Your task to perform on an android device: Show me popular videos on Youtube Image 0: 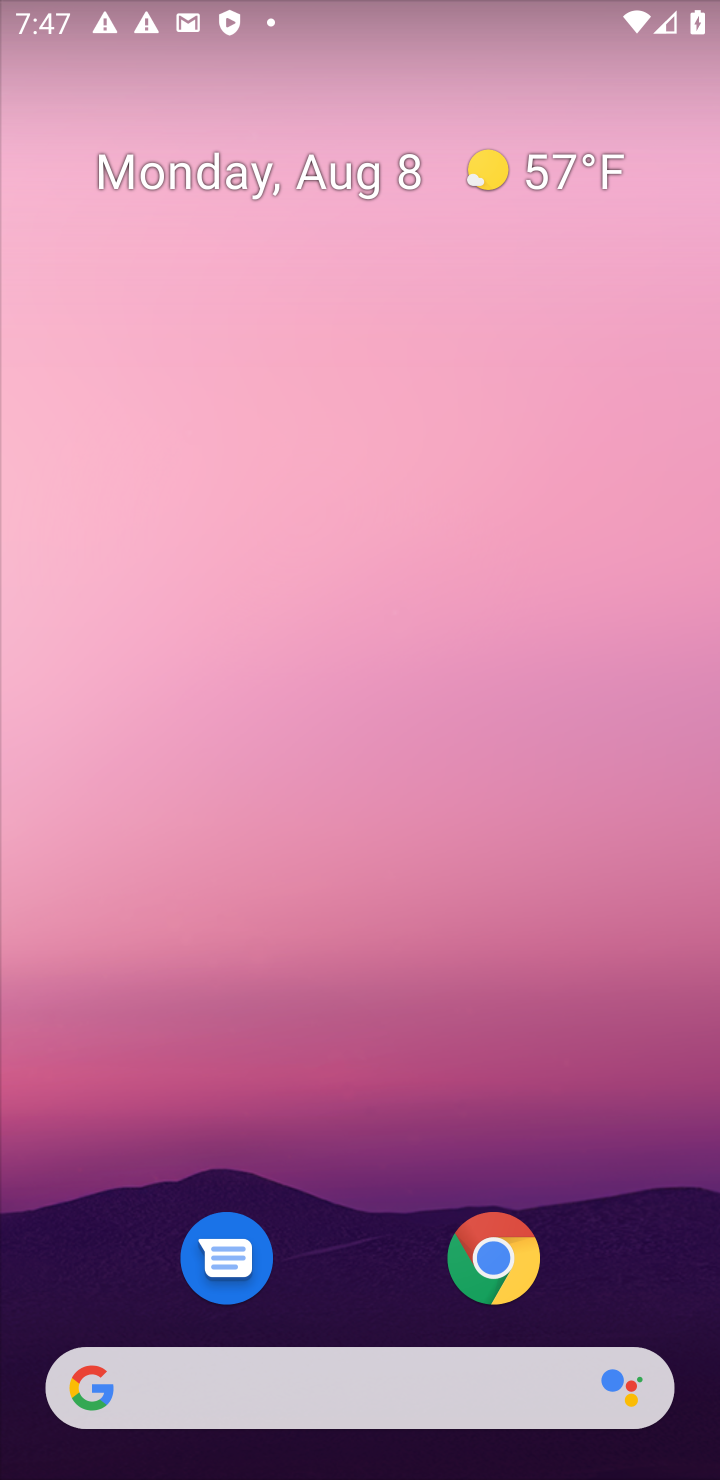
Step 0: drag from (432, 1164) to (455, 582)
Your task to perform on an android device: Show me popular videos on Youtube Image 1: 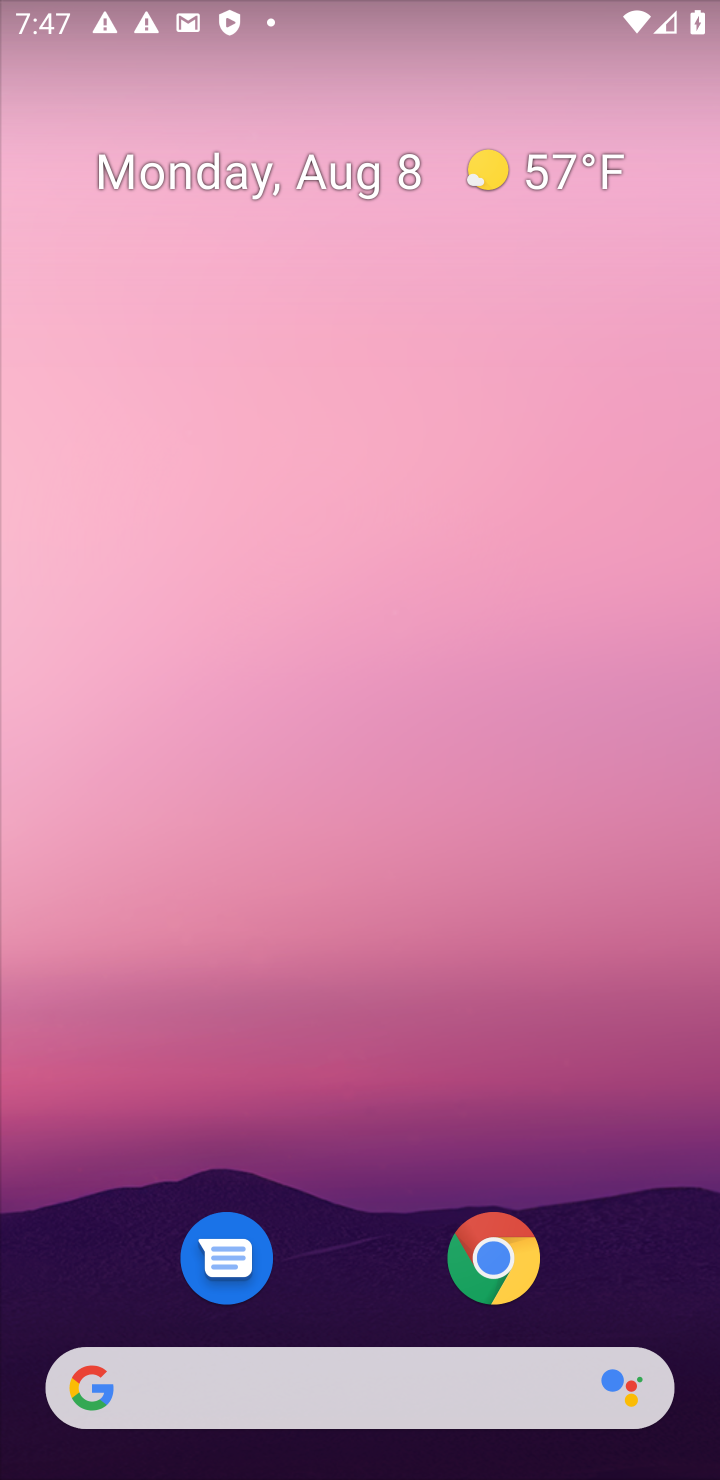
Step 1: drag from (449, 939) to (378, 256)
Your task to perform on an android device: Show me popular videos on Youtube Image 2: 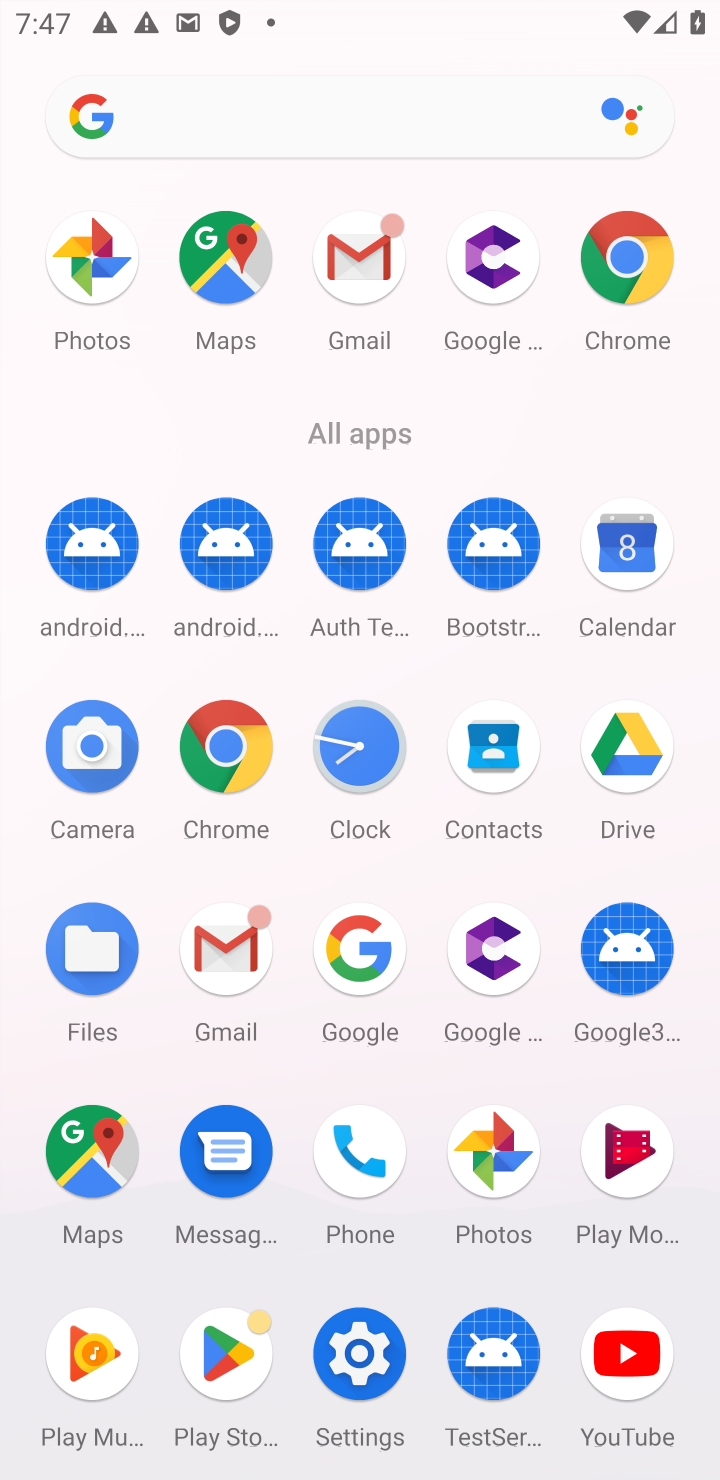
Step 2: click (622, 1412)
Your task to perform on an android device: Show me popular videos on Youtube Image 3: 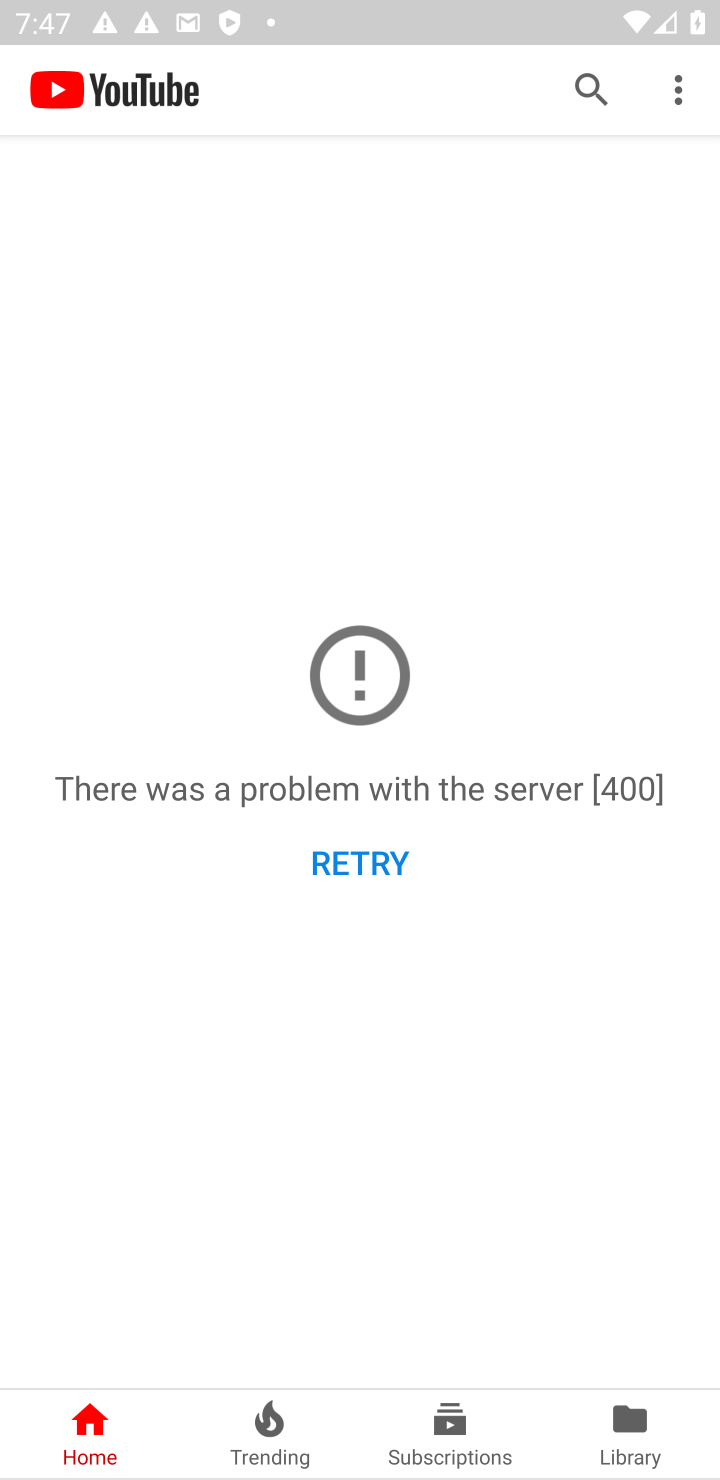
Step 3: task complete